Your task to perform on an android device: open a new tab in the chrome app Image 0: 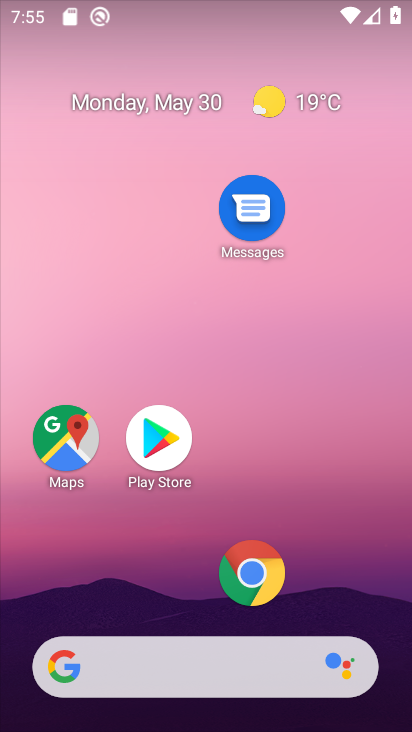
Step 0: click (249, 563)
Your task to perform on an android device: open a new tab in the chrome app Image 1: 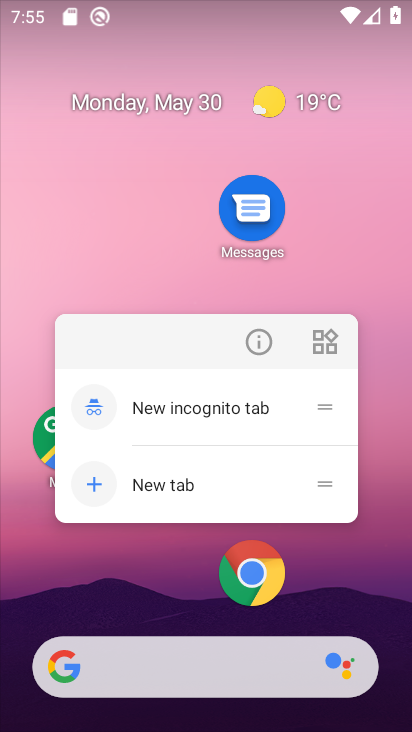
Step 1: click (249, 563)
Your task to perform on an android device: open a new tab in the chrome app Image 2: 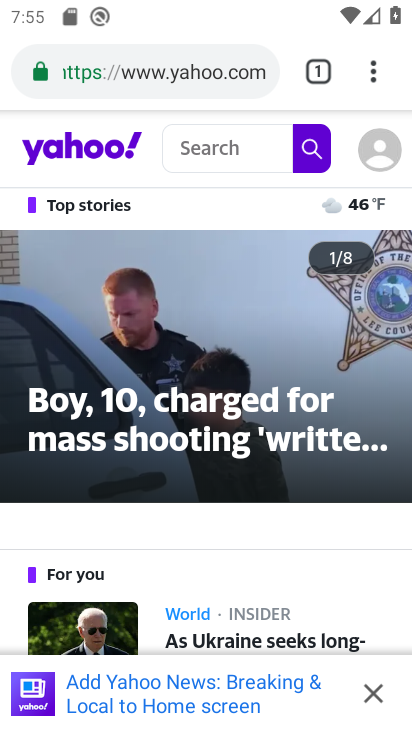
Step 2: click (373, 71)
Your task to perform on an android device: open a new tab in the chrome app Image 3: 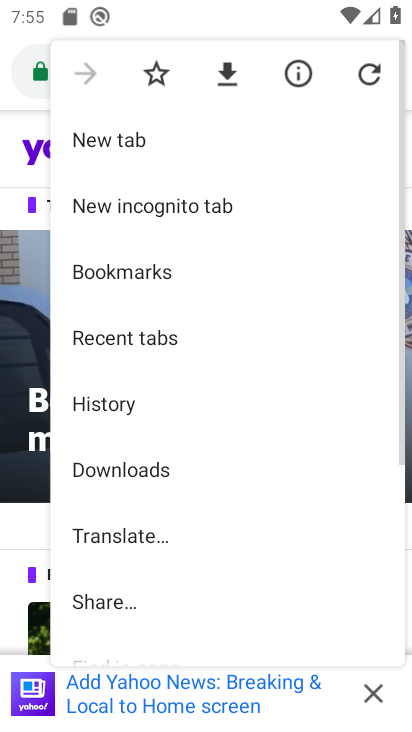
Step 3: click (130, 155)
Your task to perform on an android device: open a new tab in the chrome app Image 4: 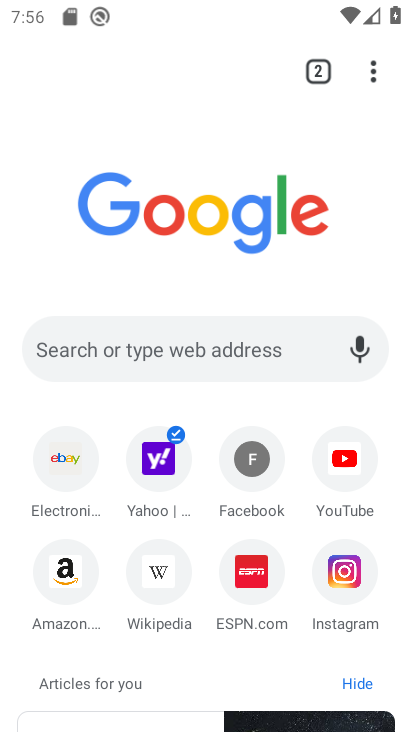
Step 4: task complete